Your task to perform on an android device: read, delete, or share a saved page in the chrome app Image 0: 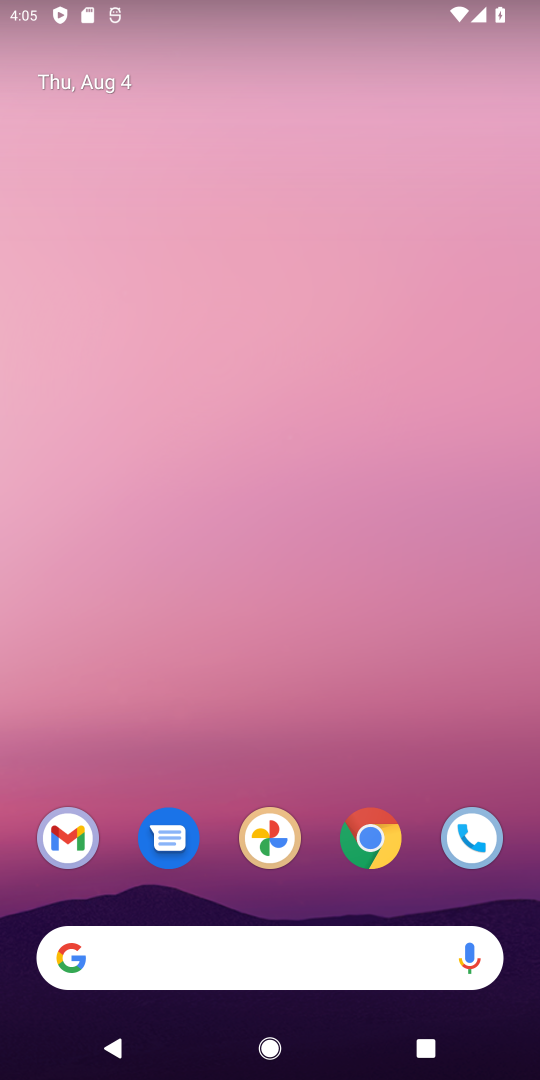
Step 0: click (355, 831)
Your task to perform on an android device: read, delete, or share a saved page in the chrome app Image 1: 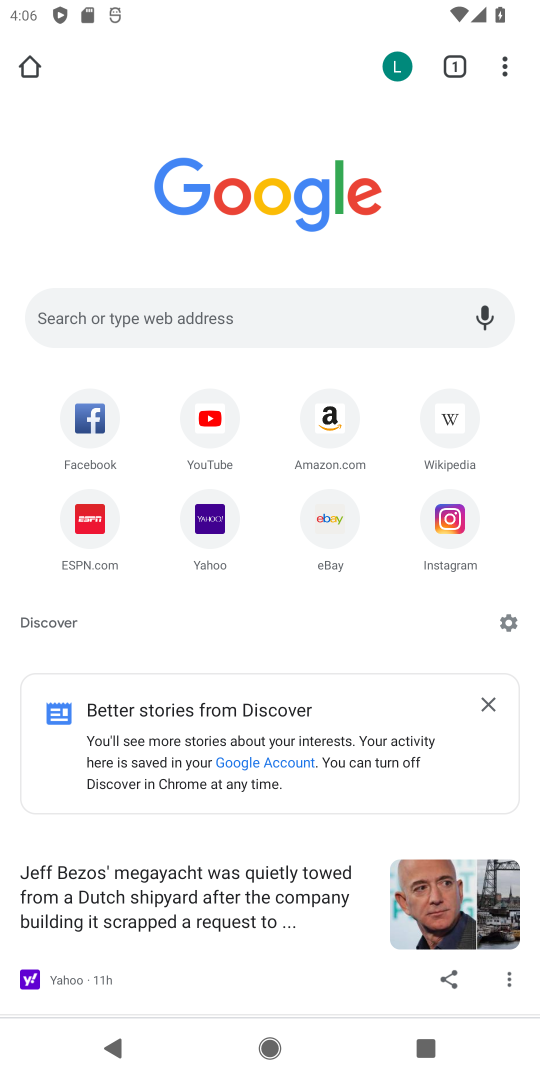
Step 1: click (504, 74)
Your task to perform on an android device: read, delete, or share a saved page in the chrome app Image 2: 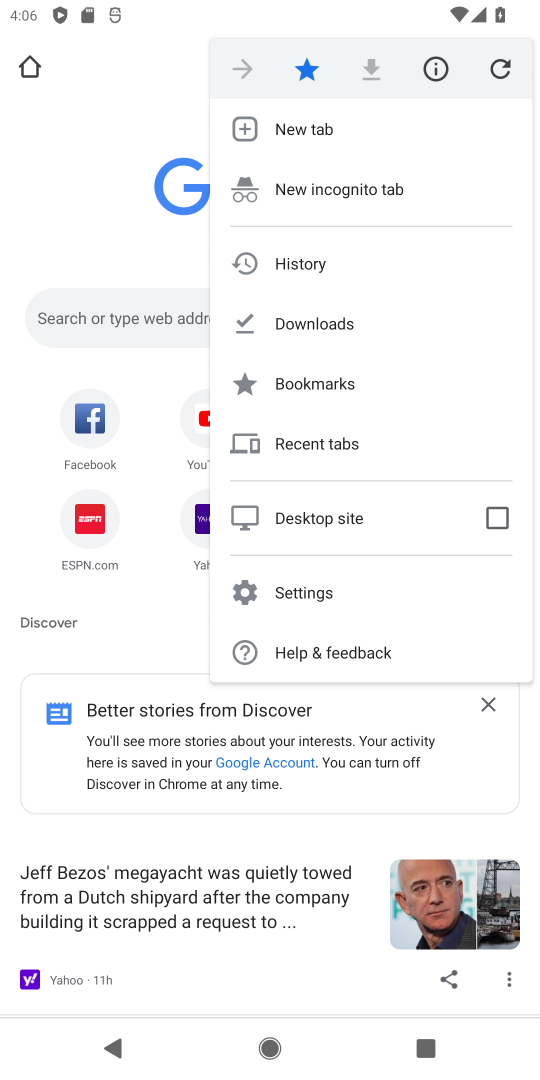
Step 2: click (312, 316)
Your task to perform on an android device: read, delete, or share a saved page in the chrome app Image 3: 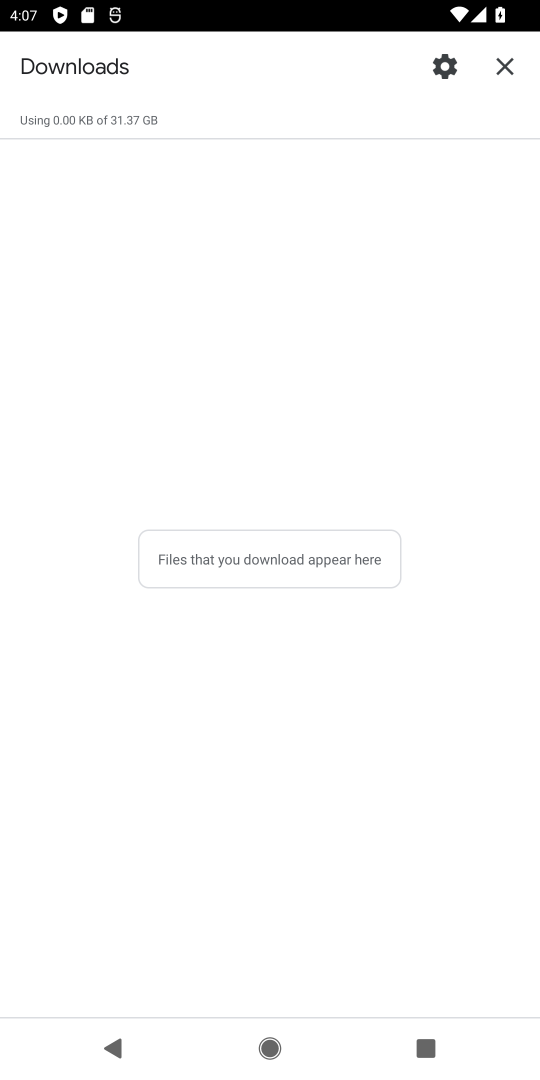
Step 3: task complete